Your task to perform on an android device: See recent photos Image 0: 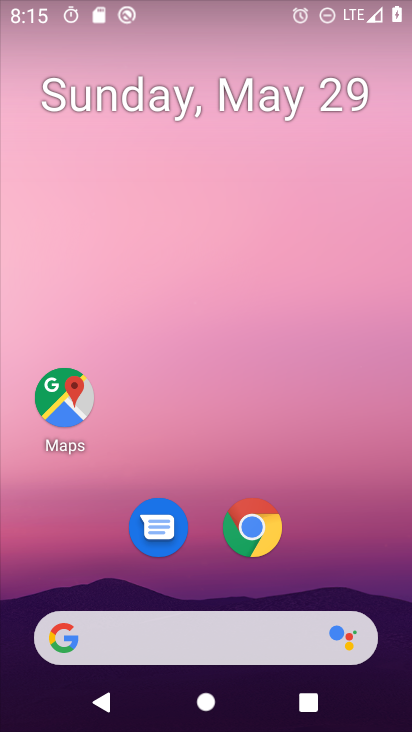
Step 0: drag from (372, 632) to (244, 15)
Your task to perform on an android device: See recent photos Image 1: 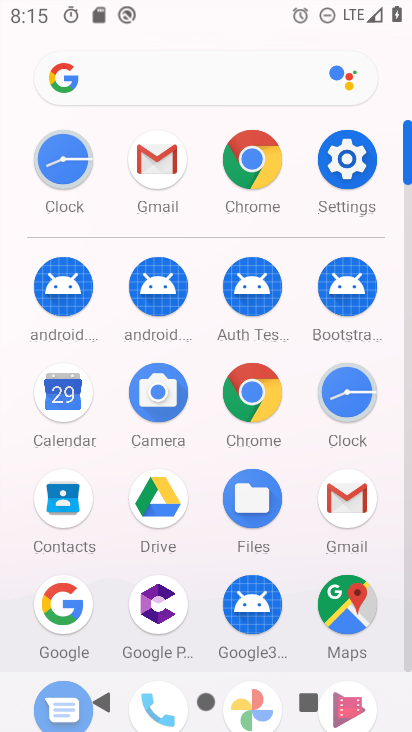
Step 1: drag from (223, 646) to (192, 172)
Your task to perform on an android device: See recent photos Image 2: 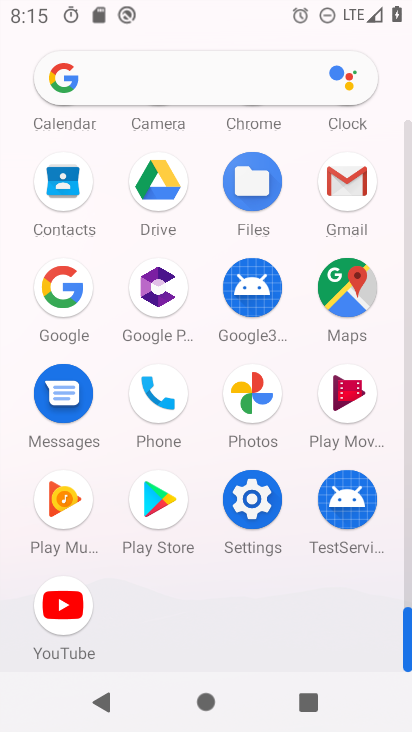
Step 2: click (264, 384)
Your task to perform on an android device: See recent photos Image 3: 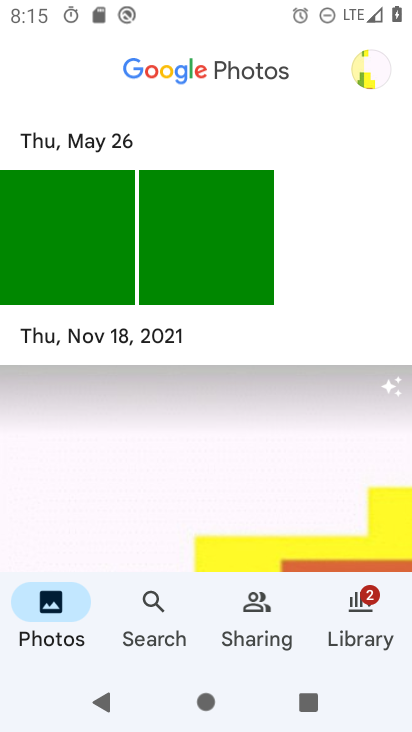
Step 3: click (85, 261)
Your task to perform on an android device: See recent photos Image 4: 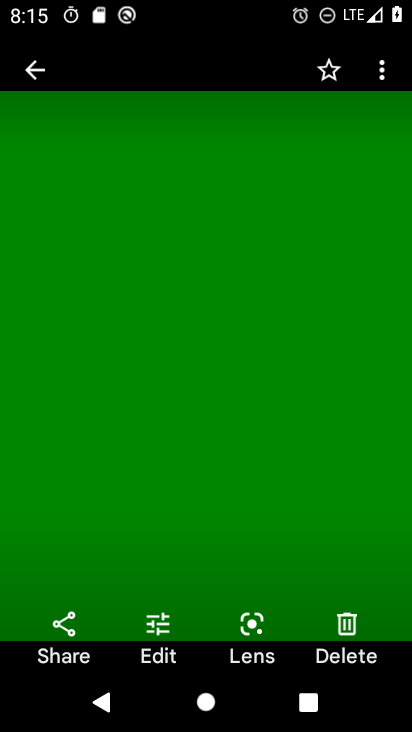
Step 4: task complete